Your task to perform on an android device: turn on notifications settings in the gmail app Image 0: 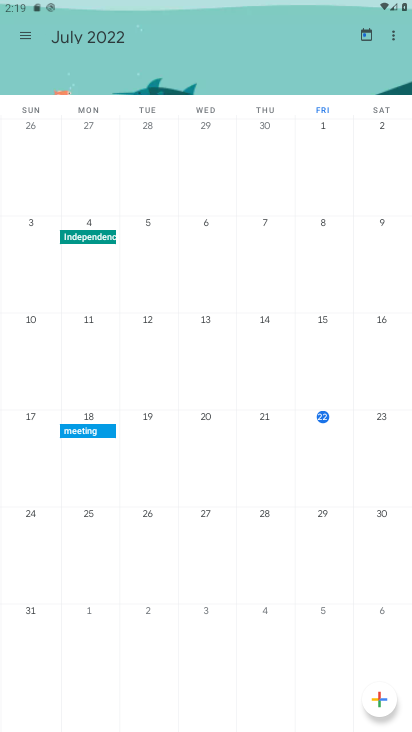
Step 0: press home button
Your task to perform on an android device: turn on notifications settings in the gmail app Image 1: 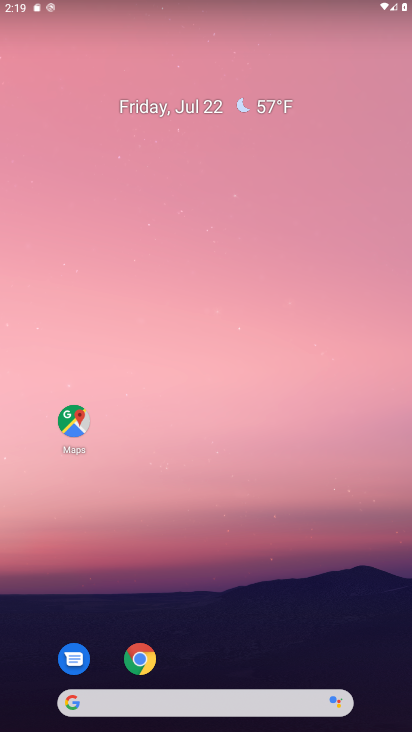
Step 1: drag from (276, 649) to (221, 131)
Your task to perform on an android device: turn on notifications settings in the gmail app Image 2: 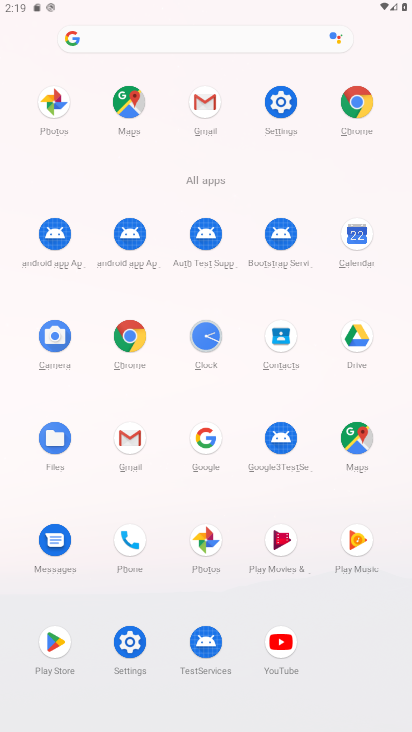
Step 2: click (201, 102)
Your task to perform on an android device: turn on notifications settings in the gmail app Image 3: 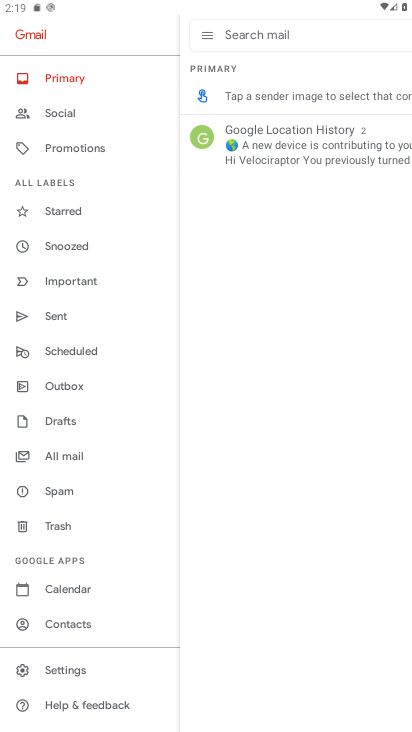
Step 3: click (88, 669)
Your task to perform on an android device: turn on notifications settings in the gmail app Image 4: 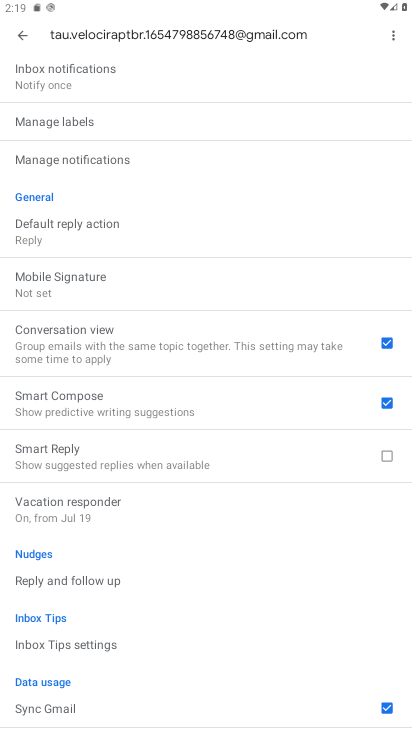
Step 4: click (185, 151)
Your task to perform on an android device: turn on notifications settings in the gmail app Image 5: 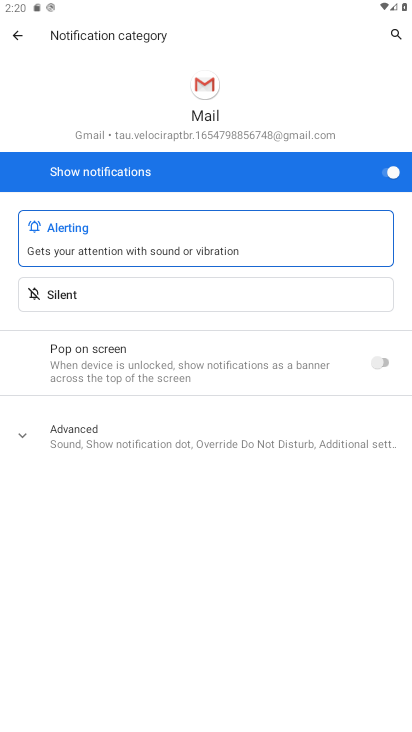
Step 5: task complete